Your task to perform on an android device: manage bookmarks in the chrome app Image 0: 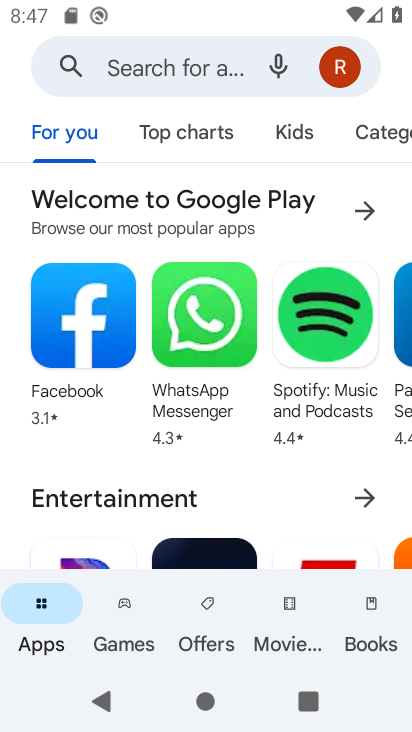
Step 0: press home button
Your task to perform on an android device: manage bookmarks in the chrome app Image 1: 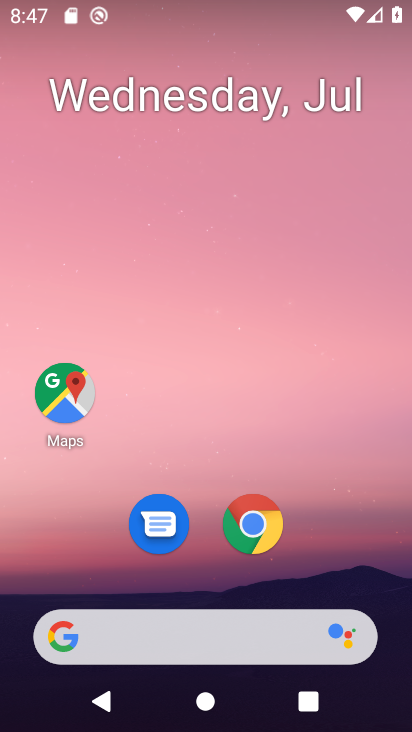
Step 1: click (242, 530)
Your task to perform on an android device: manage bookmarks in the chrome app Image 2: 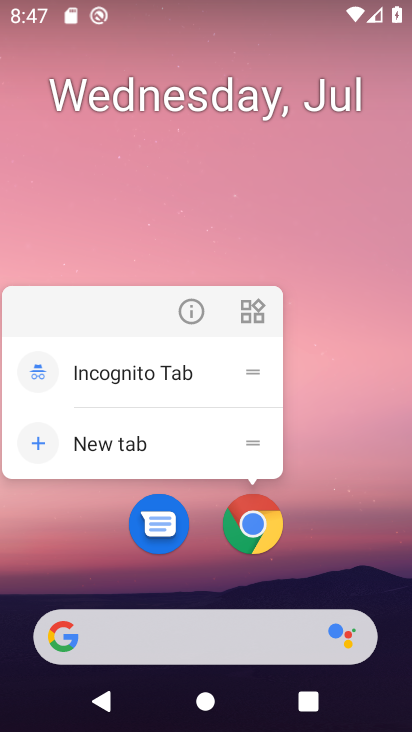
Step 2: click (251, 526)
Your task to perform on an android device: manage bookmarks in the chrome app Image 3: 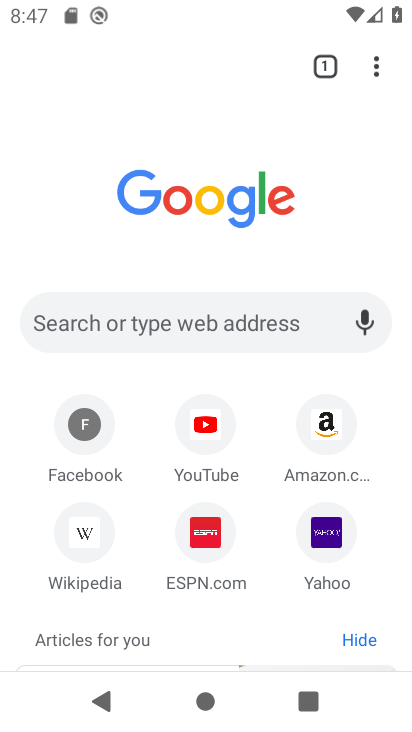
Step 3: drag from (381, 69) to (244, 258)
Your task to perform on an android device: manage bookmarks in the chrome app Image 4: 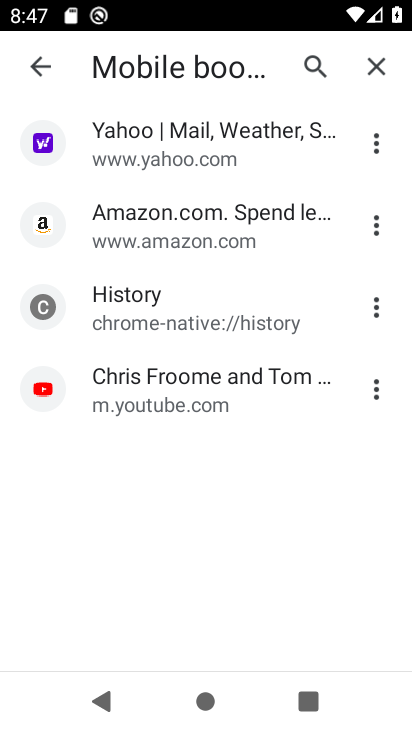
Step 4: click (380, 145)
Your task to perform on an android device: manage bookmarks in the chrome app Image 5: 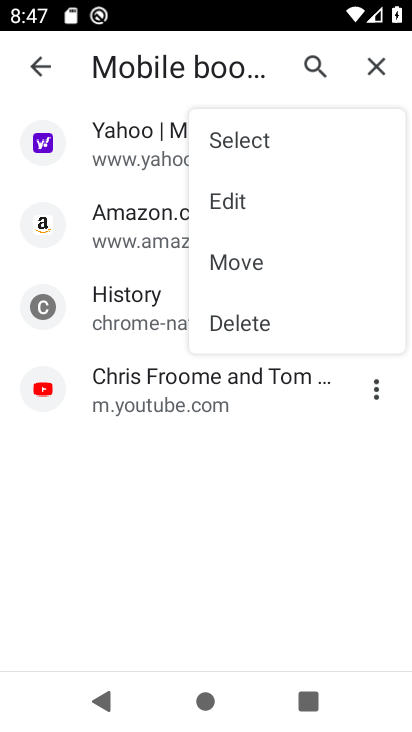
Step 5: click (259, 262)
Your task to perform on an android device: manage bookmarks in the chrome app Image 6: 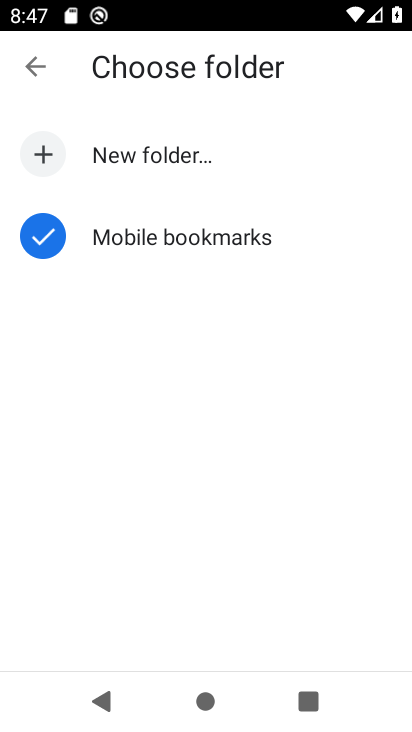
Step 6: click (173, 148)
Your task to perform on an android device: manage bookmarks in the chrome app Image 7: 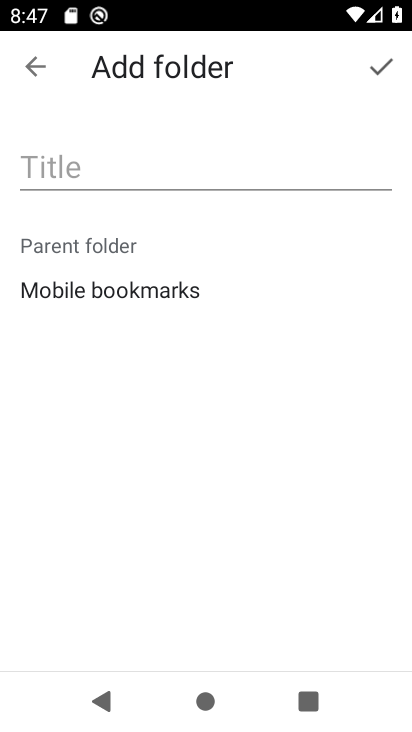
Step 7: click (66, 169)
Your task to perform on an android device: manage bookmarks in the chrome app Image 8: 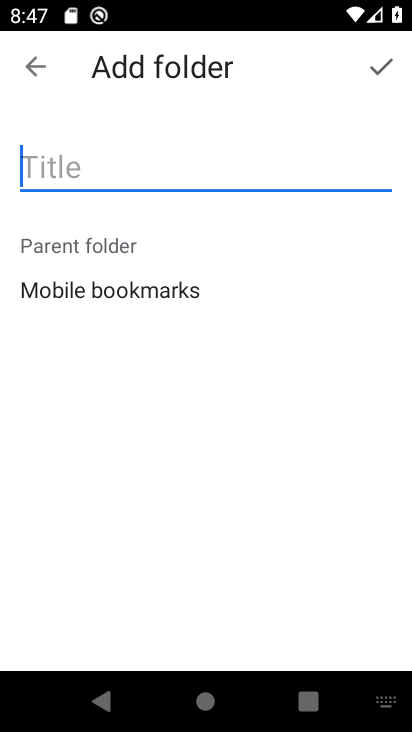
Step 8: type "nuygh"
Your task to perform on an android device: manage bookmarks in the chrome app Image 9: 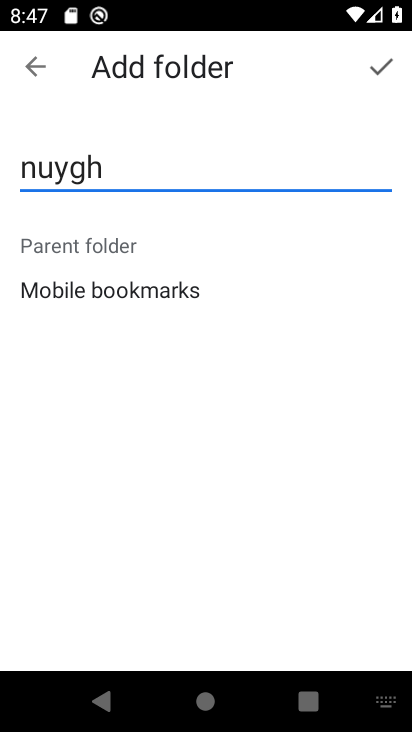
Step 9: click (382, 64)
Your task to perform on an android device: manage bookmarks in the chrome app Image 10: 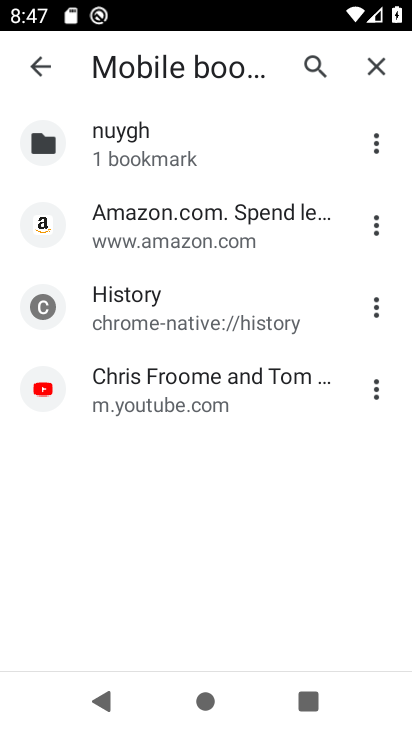
Step 10: task complete